Your task to perform on an android device: Go to eBay Image 0: 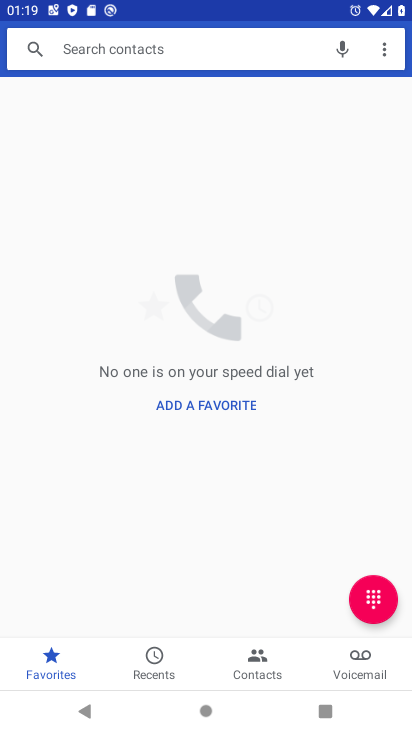
Step 0: press home button
Your task to perform on an android device: Go to eBay Image 1: 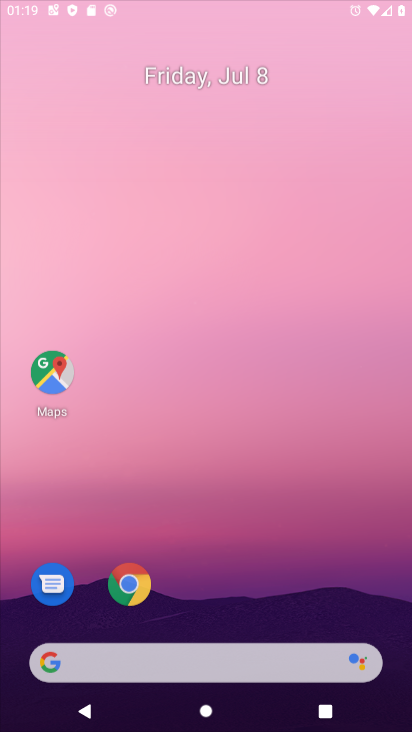
Step 1: drag from (123, 598) to (158, 304)
Your task to perform on an android device: Go to eBay Image 2: 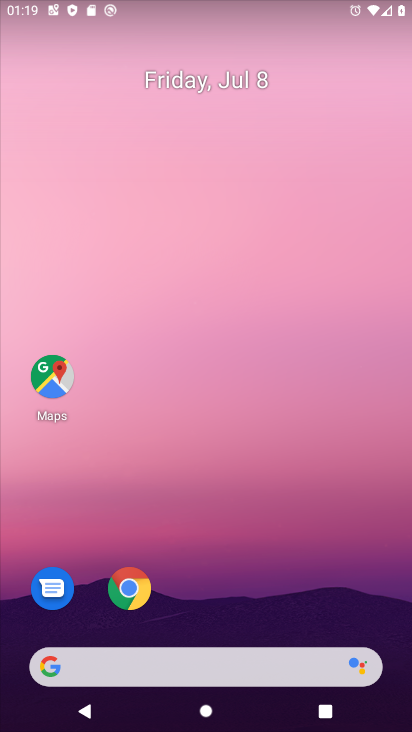
Step 2: drag from (197, 599) to (101, 0)
Your task to perform on an android device: Go to eBay Image 3: 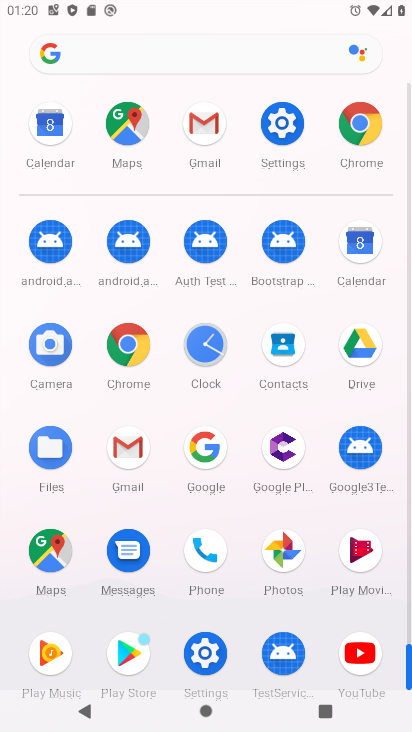
Step 3: click (173, 60)
Your task to perform on an android device: Go to eBay Image 4: 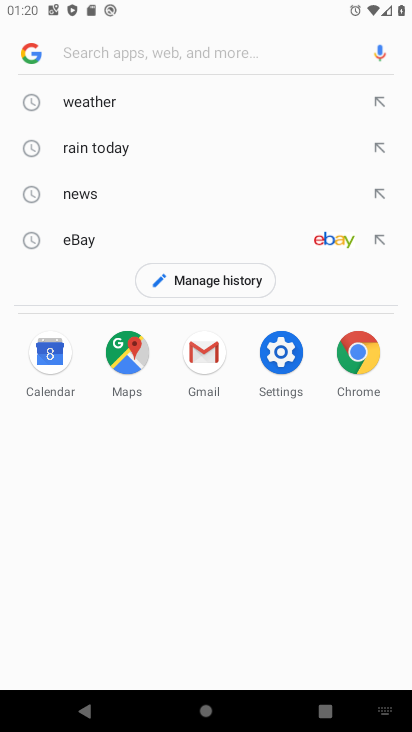
Step 4: click (138, 229)
Your task to perform on an android device: Go to eBay Image 5: 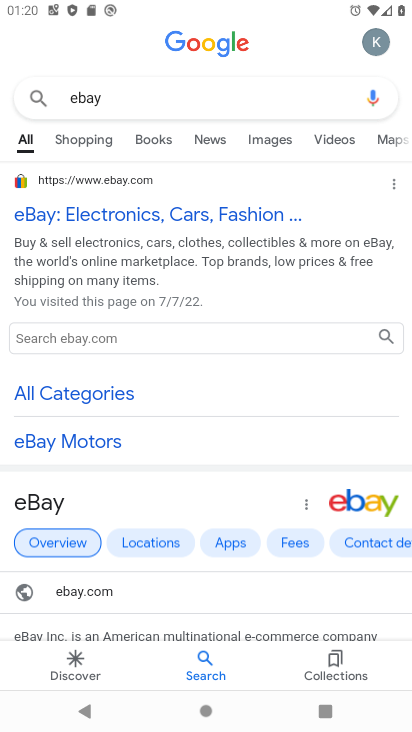
Step 5: click (93, 166)
Your task to perform on an android device: Go to eBay Image 6: 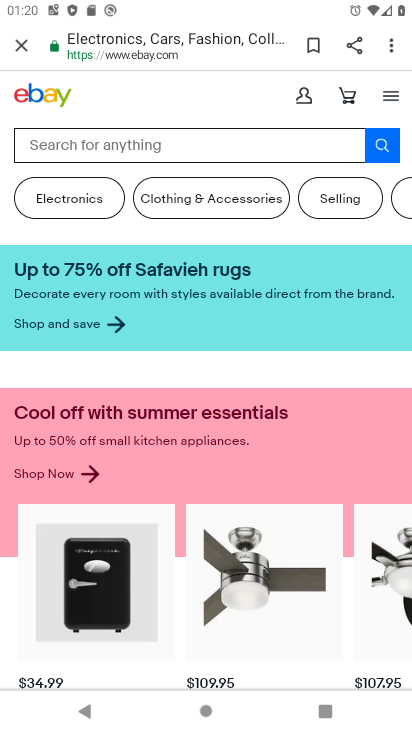
Step 6: task complete